Your task to perform on an android device: When is my next appointment? Image 0: 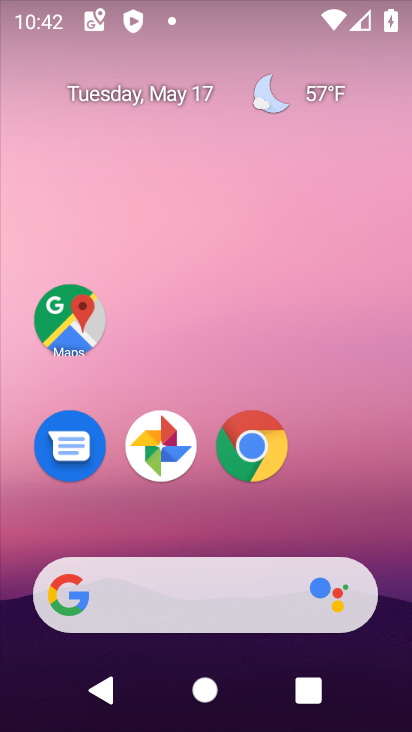
Step 0: drag from (174, 578) to (142, 14)
Your task to perform on an android device: When is my next appointment? Image 1: 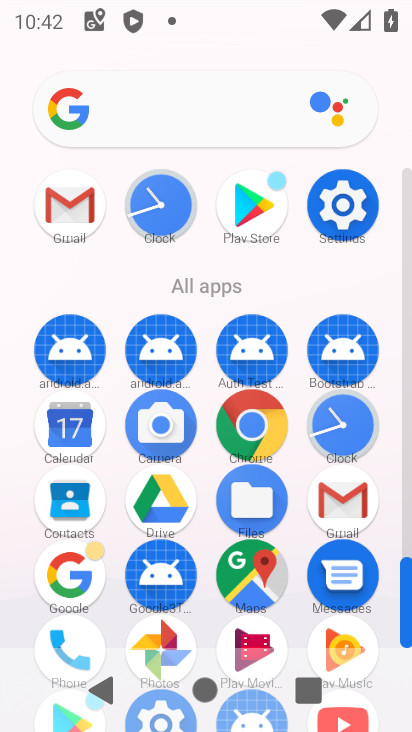
Step 1: click (61, 425)
Your task to perform on an android device: When is my next appointment? Image 2: 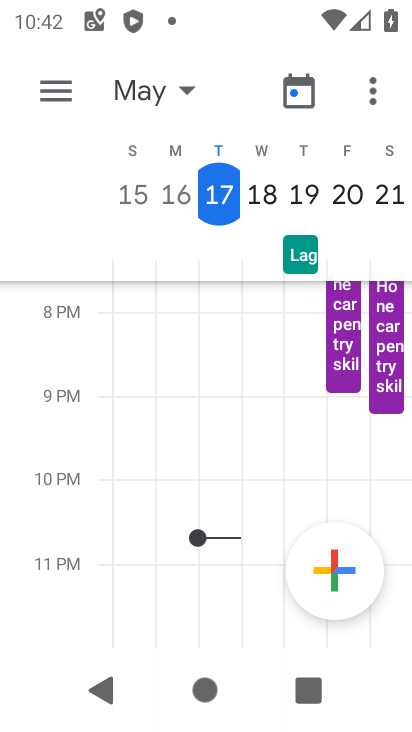
Step 2: click (47, 79)
Your task to perform on an android device: When is my next appointment? Image 3: 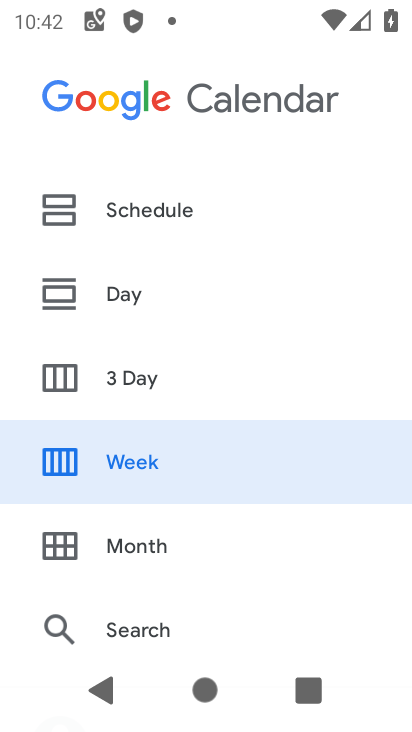
Step 3: click (75, 213)
Your task to perform on an android device: When is my next appointment? Image 4: 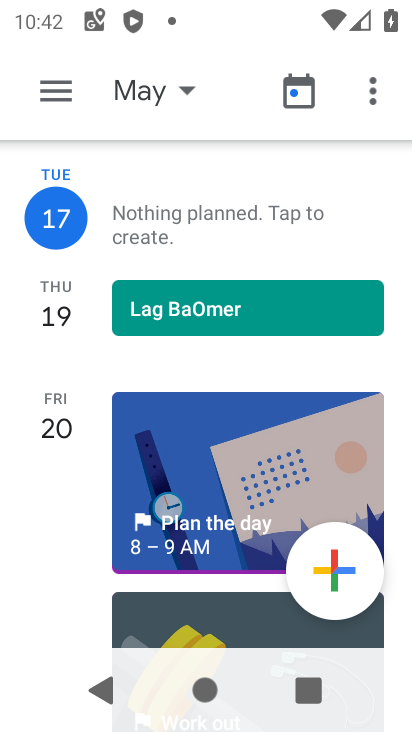
Step 4: task complete